Your task to perform on an android device: turn on translation in the chrome app Image 0: 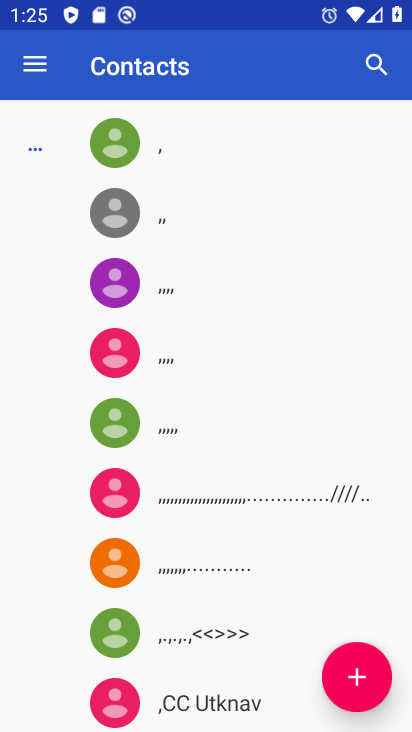
Step 0: press home button
Your task to perform on an android device: turn on translation in the chrome app Image 1: 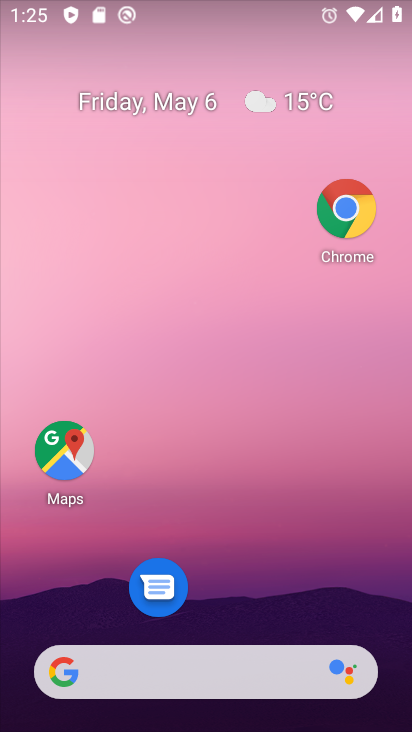
Step 1: click (348, 249)
Your task to perform on an android device: turn on translation in the chrome app Image 2: 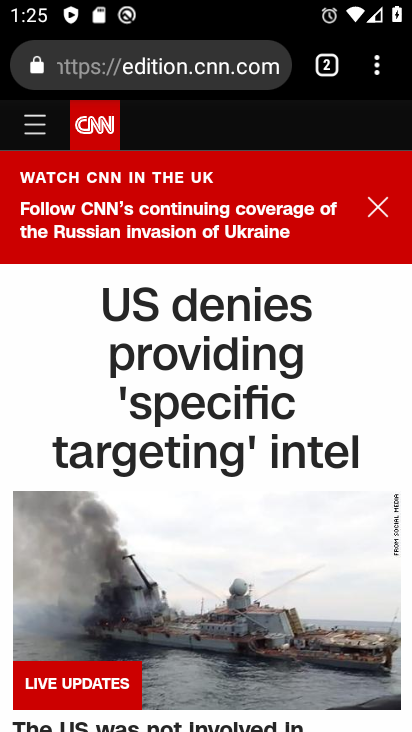
Step 2: click (375, 70)
Your task to perform on an android device: turn on translation in the chrome app Image 3: 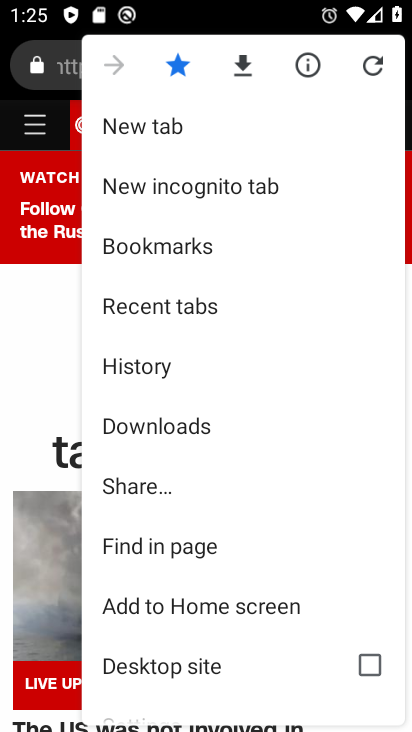
Step 3: click (194, 304)
Your task to perform on an android device: turn on translation in the chrome app Image 4: 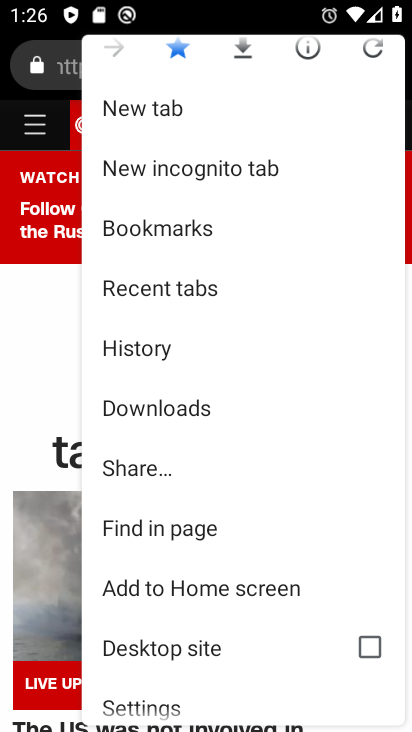
Step 4: click (169, 709)
Your task to perform on an android device: turn on translation in the chrome app Image 5: 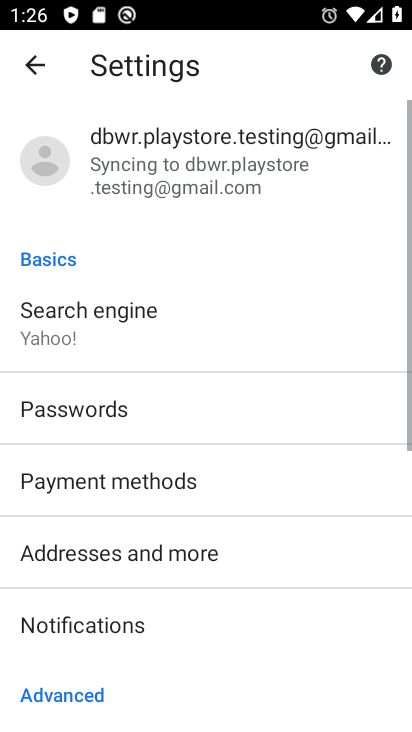
Step 5: drag from (220, 625) to (219, 232)
Your task to perform on an android device: turn on translation in the chrome app Image 6: 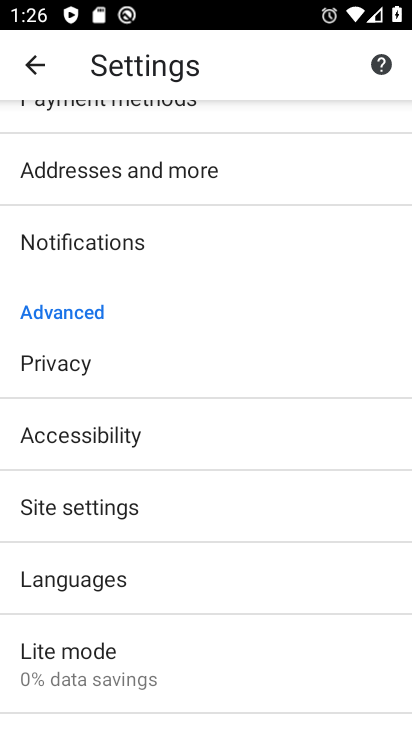
Step 6: click (99, 586)
Your task to perform on an android device: turn on translation in the chrome app Image 7: 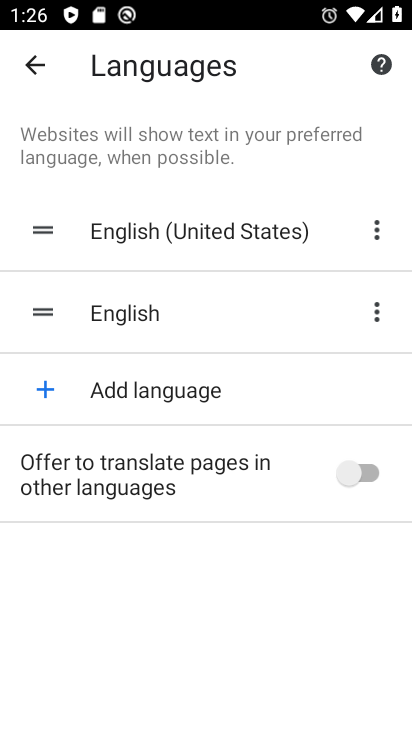
Step 7: click (363, 468)
Your task to perform on an android device: turn on translation in the chrome app Image 8: 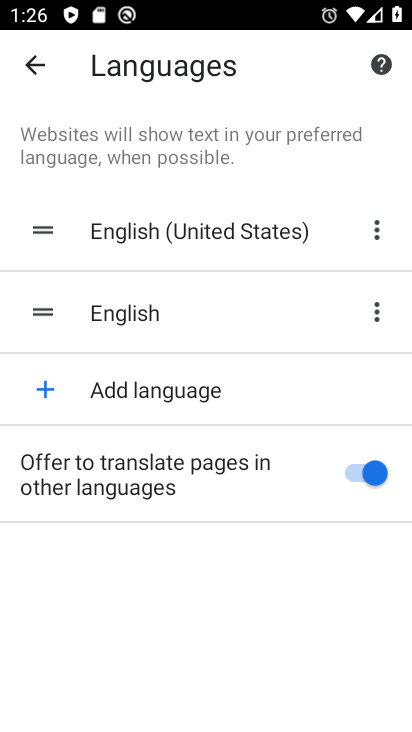
Step 8: task complete